Your task to perform on an android device: delete the emails in spam in the gmail app Image 0: 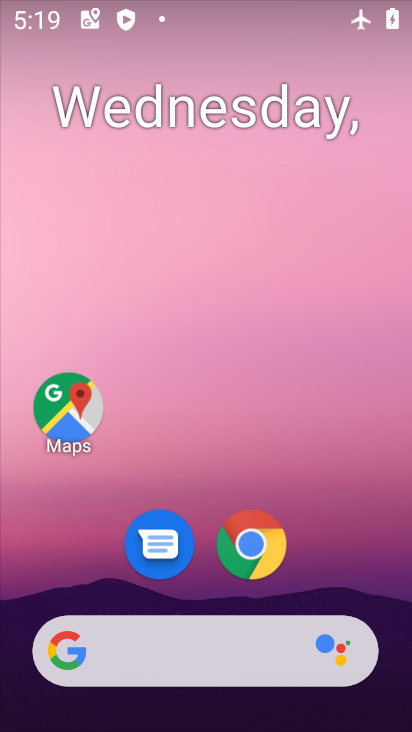
Step 0: drag from (376, 618) to (360, 104)
Your task to perform on an android device: delete the emails in spam in the gmail app Image 1: 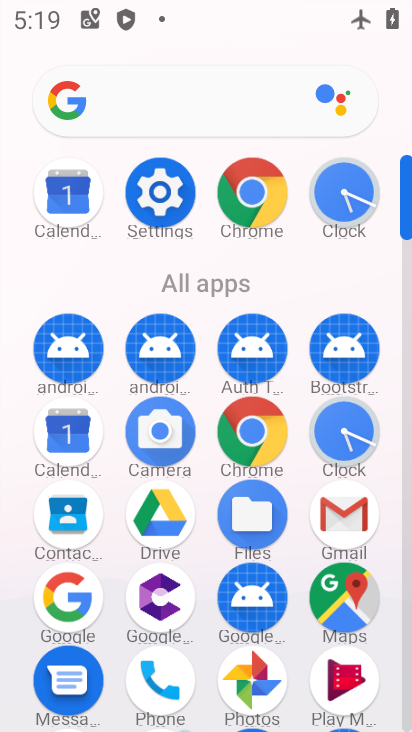
Step 1: click (355, 522)
Your task to perform on an android device: delete the emails in spam in the gmail app Image 2: 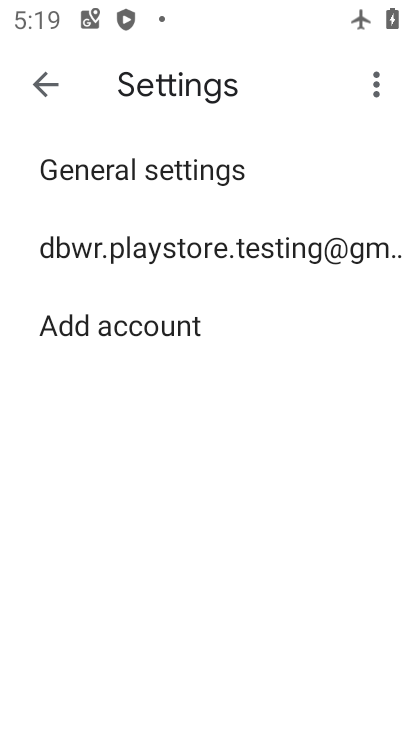
Step 2: click (33, 89)
Your task to perform on an android device: delete the emails in spam in the gmail app Image 3: 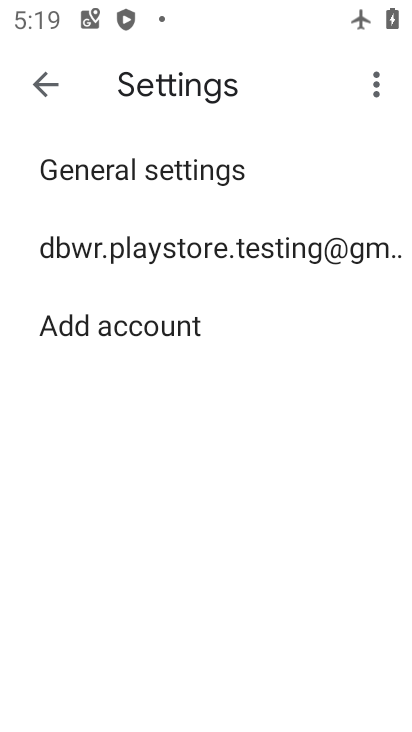
Step 3: click (44, 86)
Your task to perform on an android device: delete the emails in spam in the gmail app Image 4: 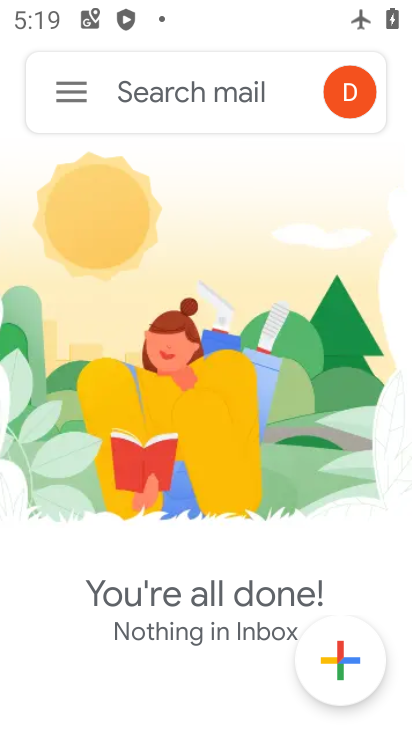
Step 4: click (70, 92)
Your task to perform on an android device: delete the emails in spam in the gmail app Image 5: 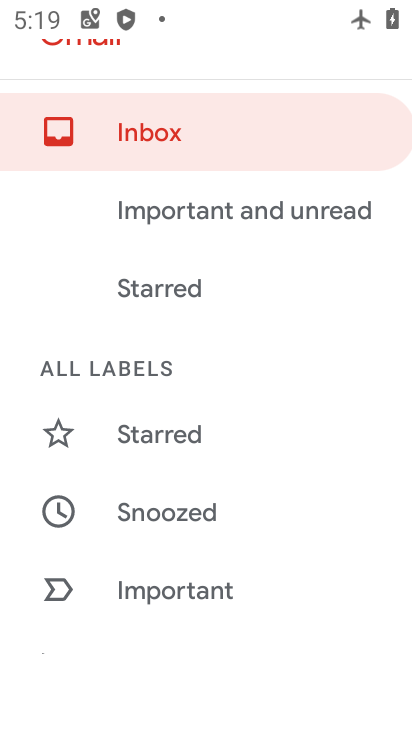
Step 5: click (127, 132)
Your task to perform on an android device: delete the emails in spam in the gmail app Image 6: 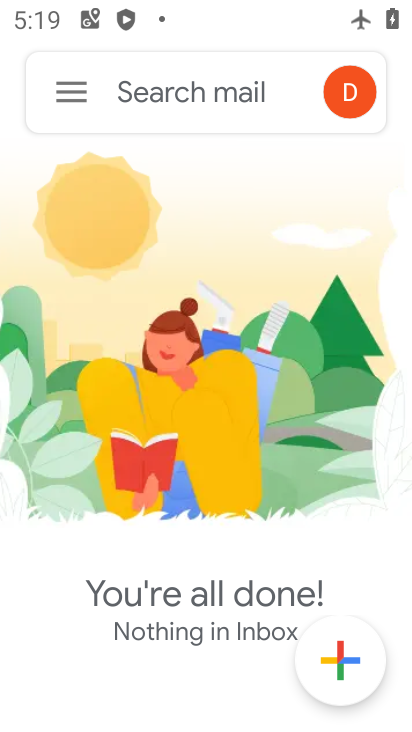
Step 6: task complete